Your task to perform on an android device: Open Maps and search for coffee Image 0: 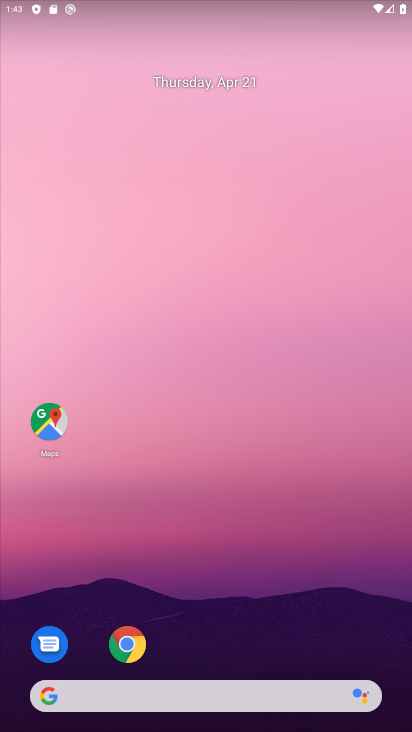
Step 0: drag from (309, 641) to (228, 49)
Your task to perform on an android device: Open Maps and search for coffee Image 1: 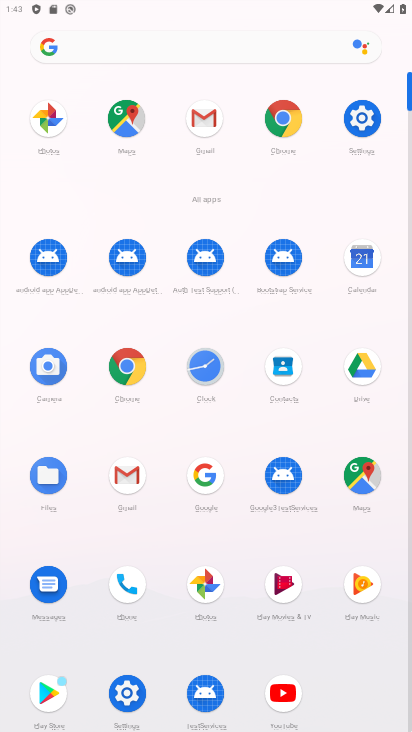
Step 1: click (135, 112)
Your task to perform on an android device: Open Maps and search for coffee Image 2: 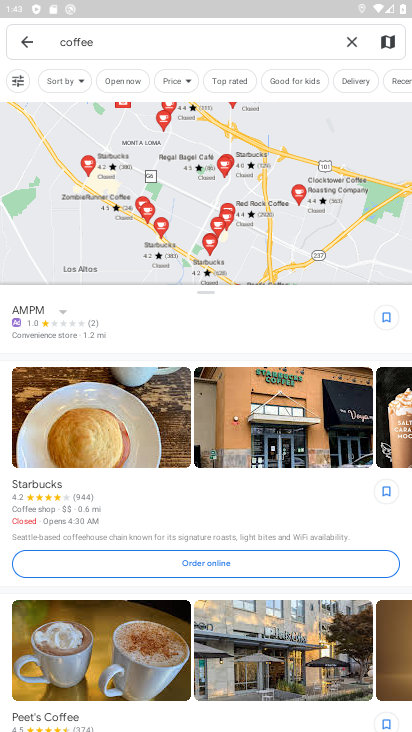
Step 2: task complete